Your task to perform on an android device: open a new tab in the chrome app Image 0: 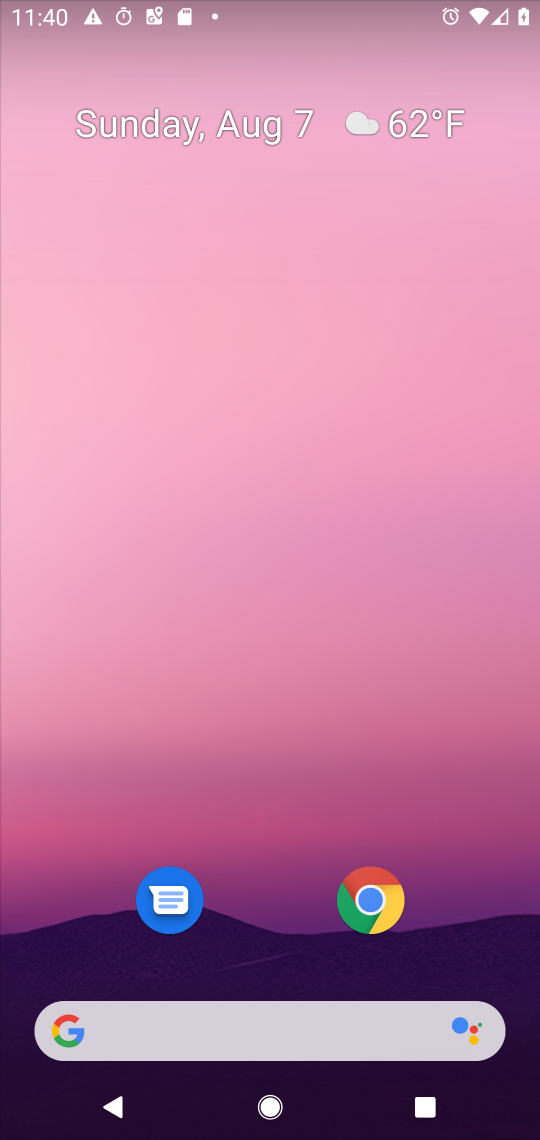
Step 0: click (368, 892)
Your task to perform on an android device: open a new tab in the chrome app Image 1: 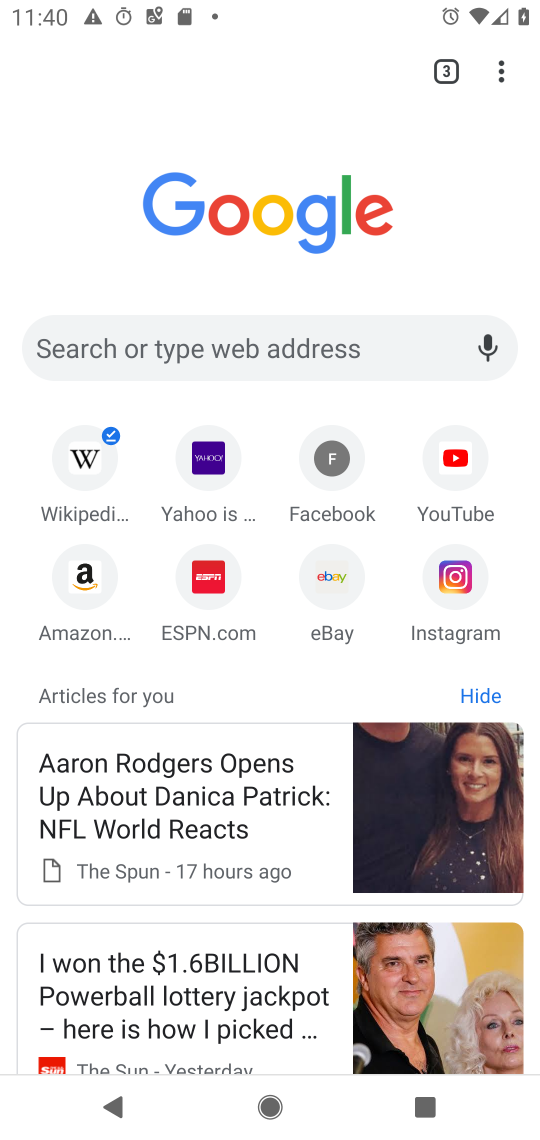
Step 1: click (437, 68)
Your task to perform on an android device: open a new tab in the chrome app Image 2: 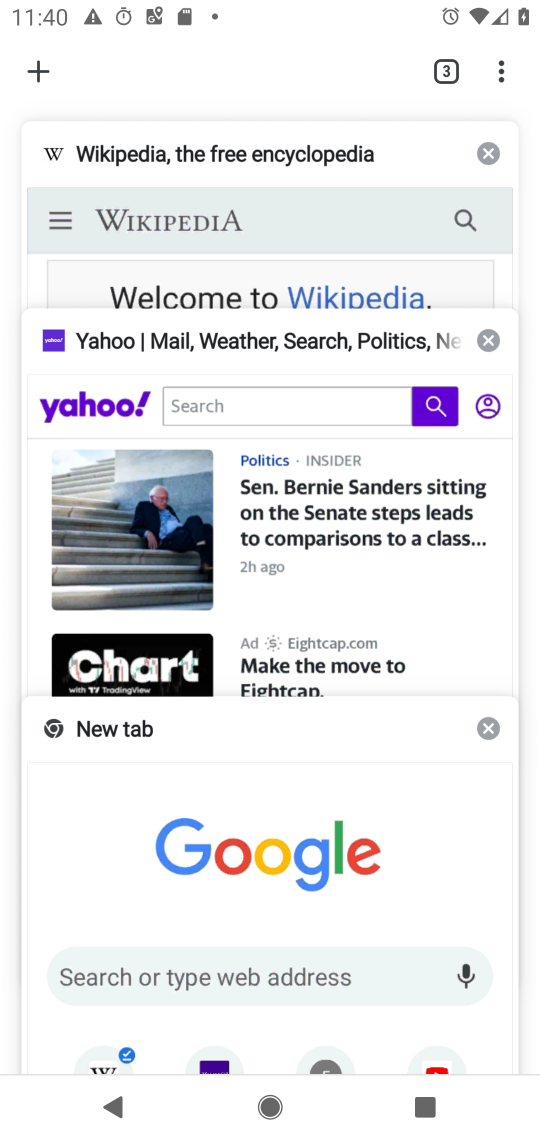
Step 2: click (36, 63)
Your task to perform on an android device: open a new tab in the chrome app Image 3: 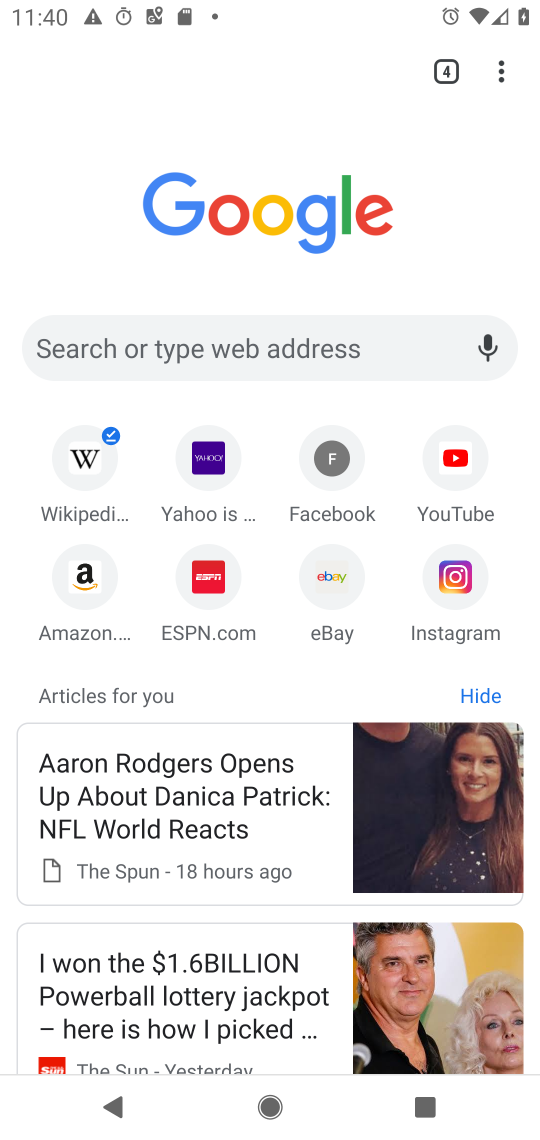
Step 3: task complete